Your task to perform on an android device: Open the web browser Image 0: 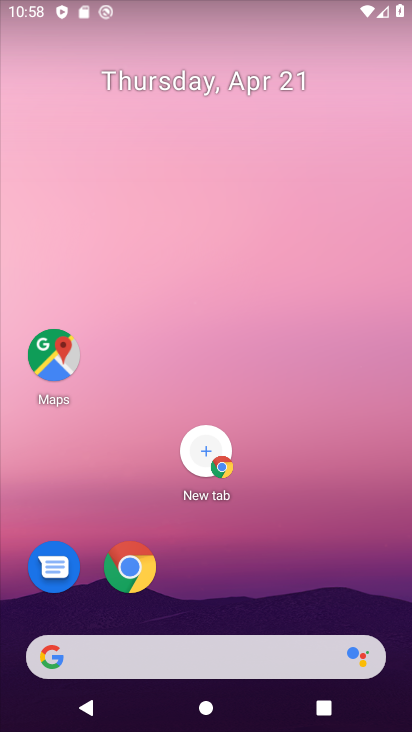
Step 0: click (225, 663)
Your task to perform on an android device: Open the web browser Image 1: 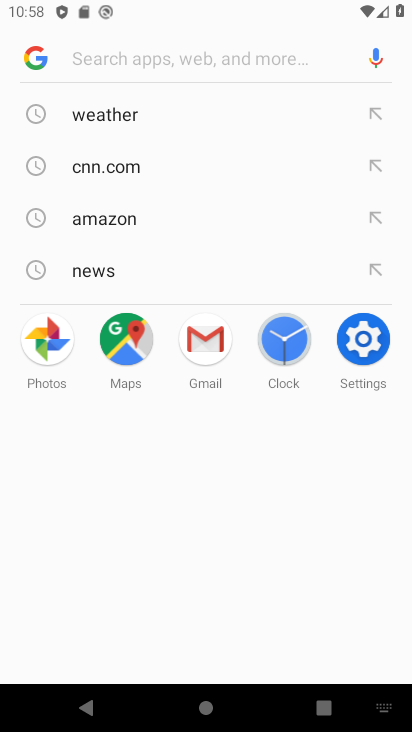
Step 1: task complete